Your task to perform on an android device: Open calendar and show me the third week of next month Image 0: 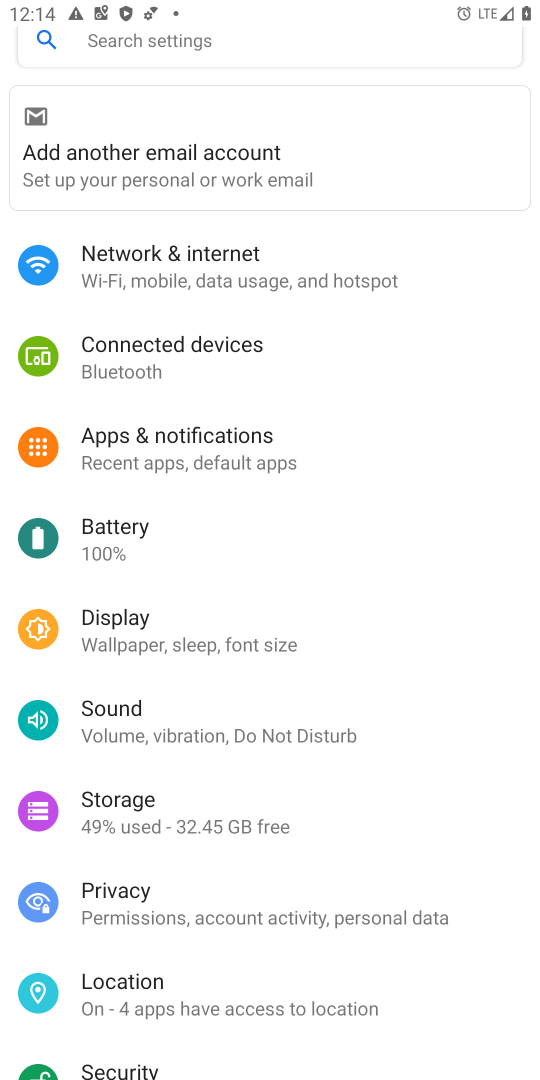
Step 0: press home button
Your task to perform on an android device: Open calendar and show me the third week of next month Image 1: 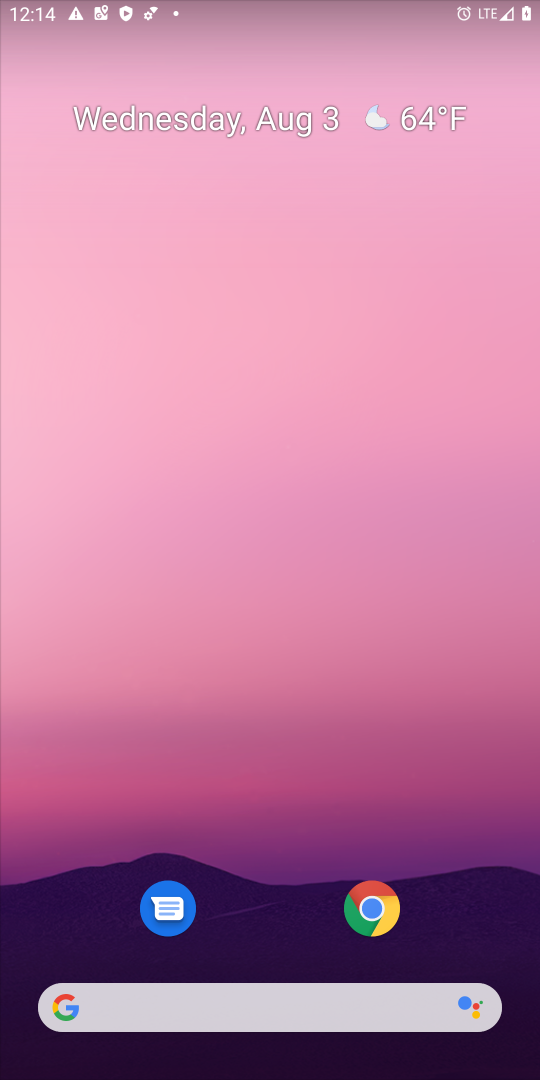
Step 1: drag from (282, 838) to (363, 146)
Your task to perform on an android device: Open calendar and show me the third week of next month Image 2: 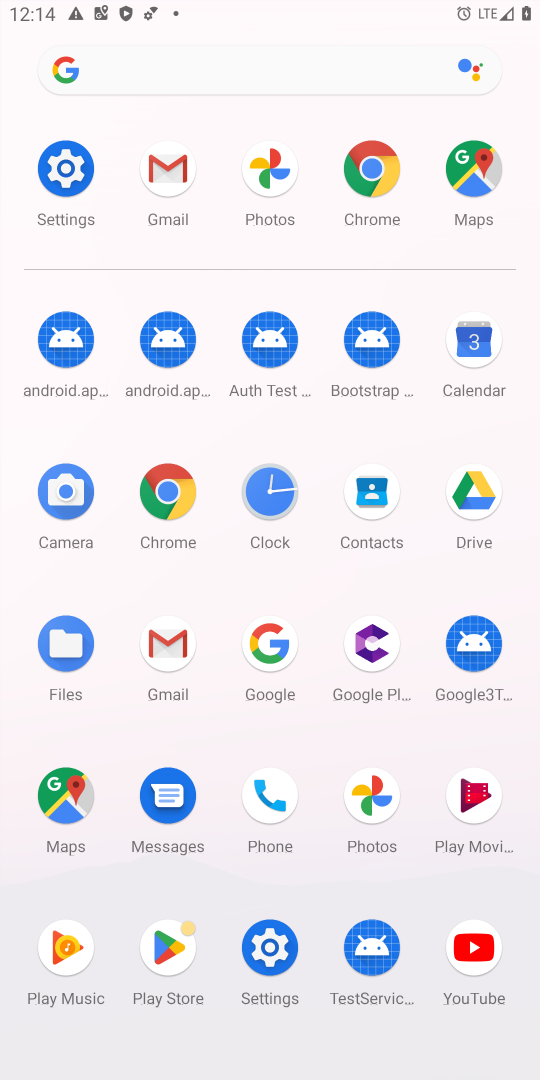
Step 2: click (474, 359)
Your task to perform on an android device: Open calendar and show me the third week of next month Image 3: 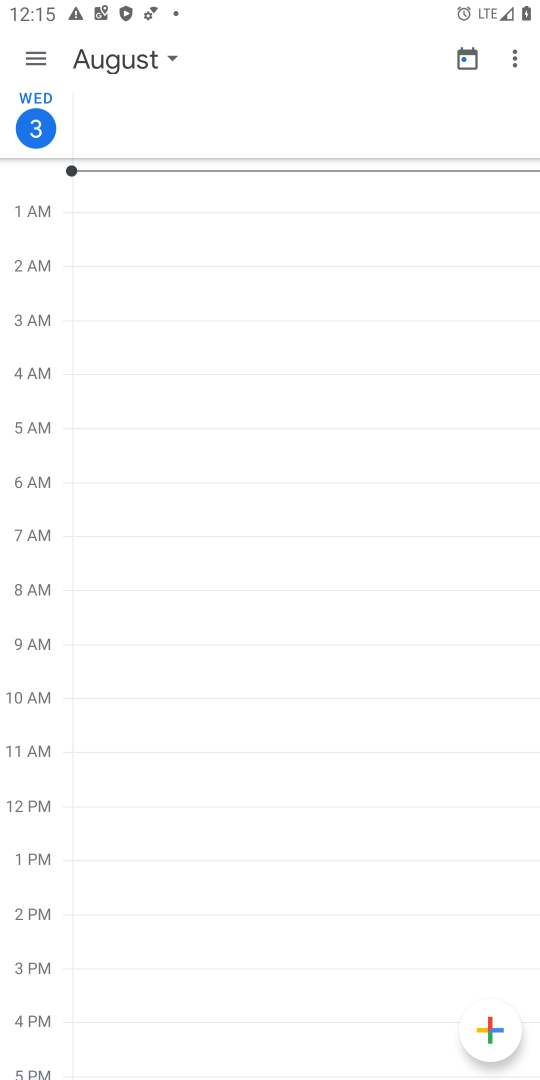
Step 3: click (142, 51)
Your task to perform on an android device: Open calendar and show me the third week of next month Image 4: 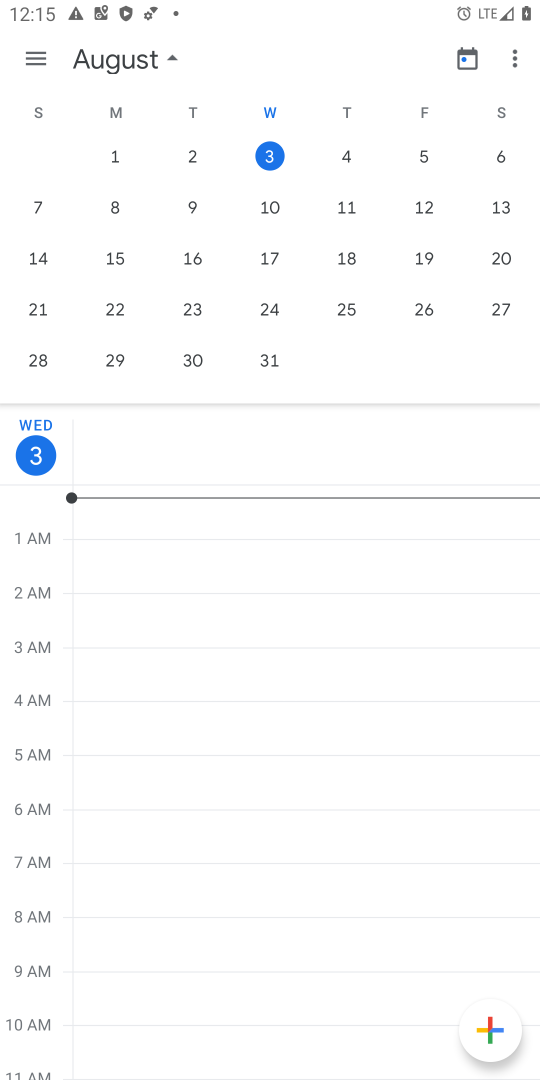
Step 4: drag from (410, 254) to (2, 262)
Your task to perform on an android device: Open calendar and show me the third week of next month Image 5: 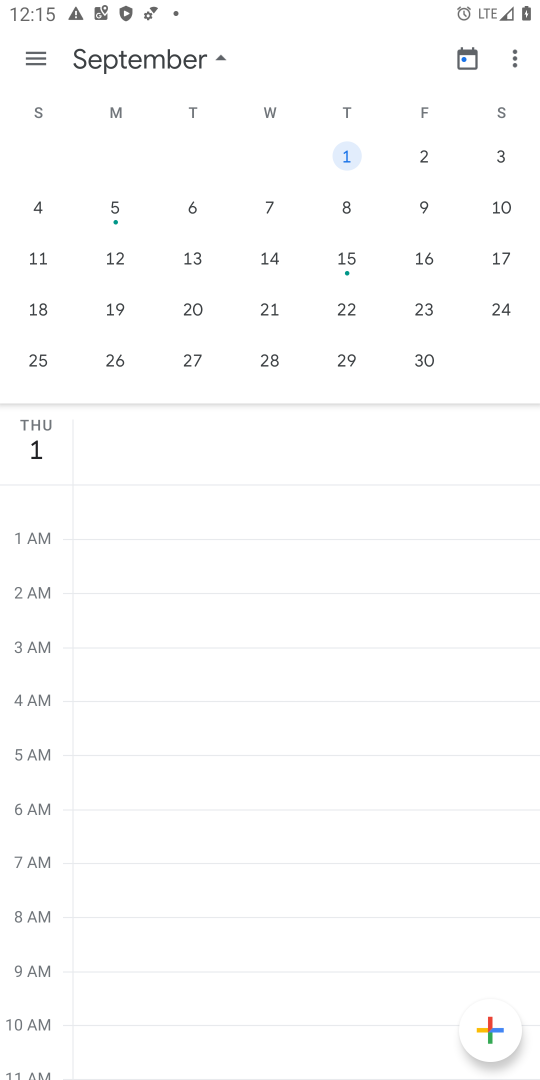
Step 5: click (34, 308)
Your task to perform on an android device: Open calendar and show me the third week of next month Image 6: 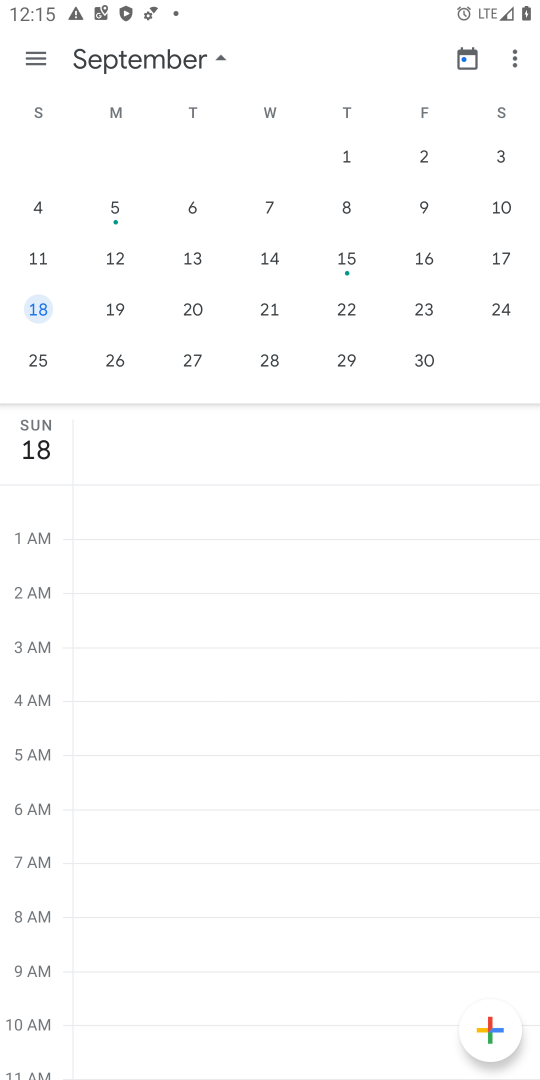
Step 6: click (222, 65)
Your task to perform on an android device: Open calendar and show me the third week of next month Image 7: 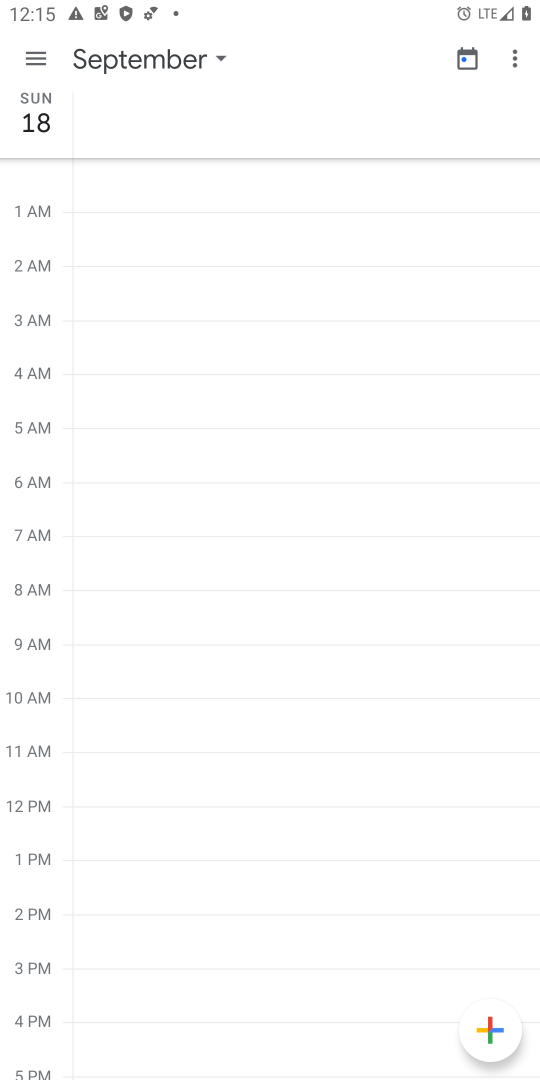
Step 7: task complete